Your task to perform on an android device: turn on improve location accuracy Image 0: 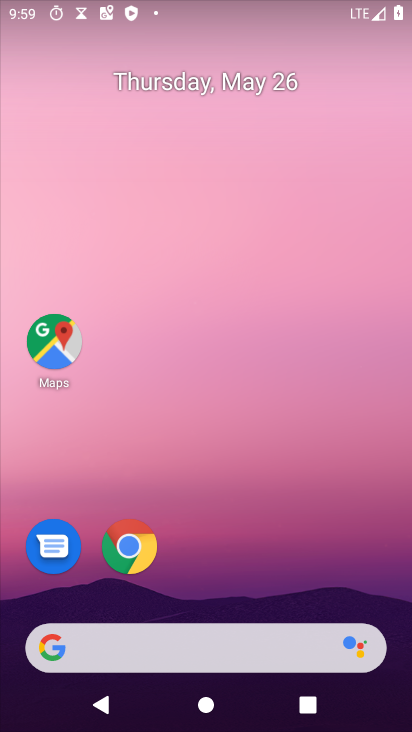
Step 0: drag from (328, 571) to (335, 145)
Your task to perform on an android device: turn on improve location accuracy Image 1: 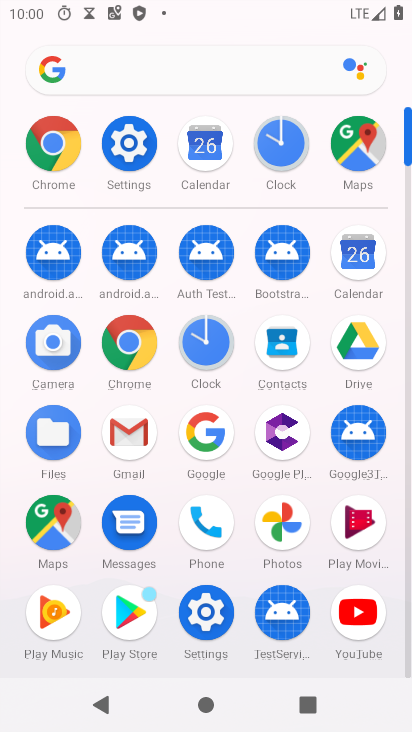
Step 1: click (199, 622)
Your task to perform on an android device: turn on improve location accuracy Image 2: 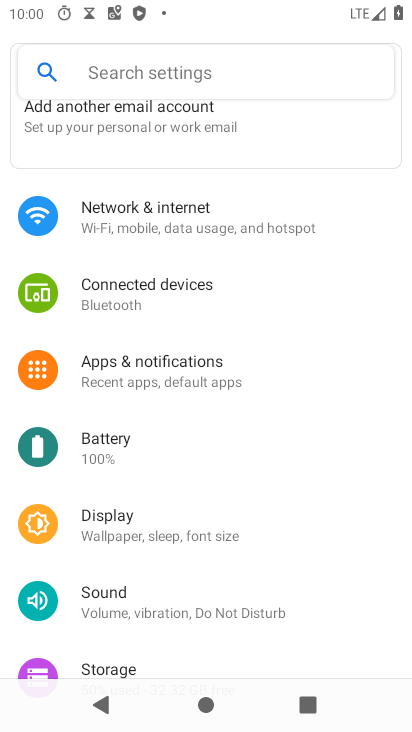
Step 2: drag from (296, 584) to (297, 338)
Your task to perform on an android device: turn on improve location accuracy Image 3: 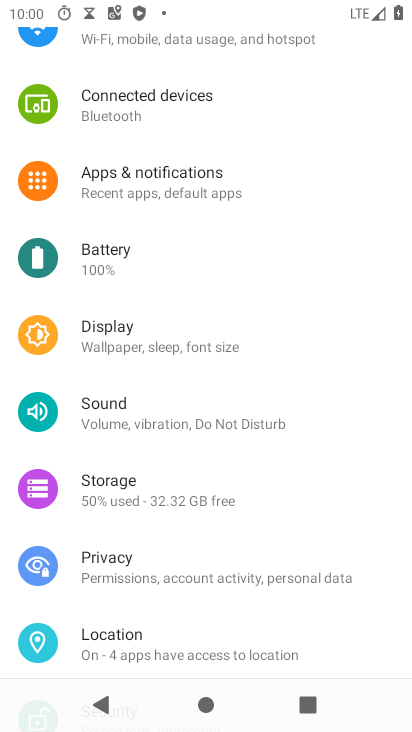
Step 3: drag from (287, 624) to (298, 353)
Your task to perform on an android device: turn on improve location accuracy Image 4: 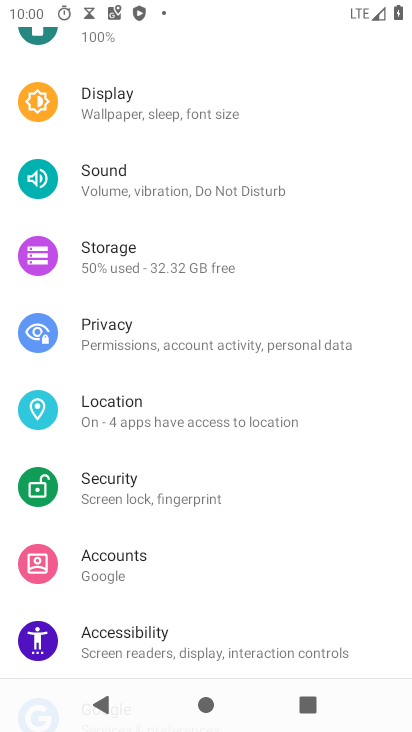
Step 4: click (166, 408)
Your task to perform on an android device: turn on improve location accuracy Image 5: 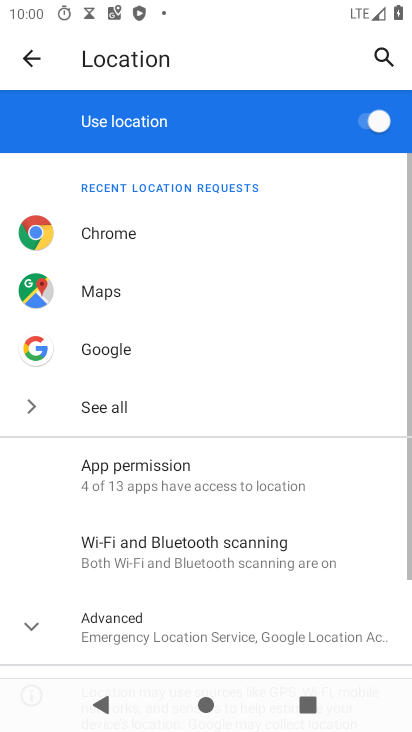
Step 5: click (249, 627)
Your task to perform on an android device: turn on improve location accuracy Image 6: 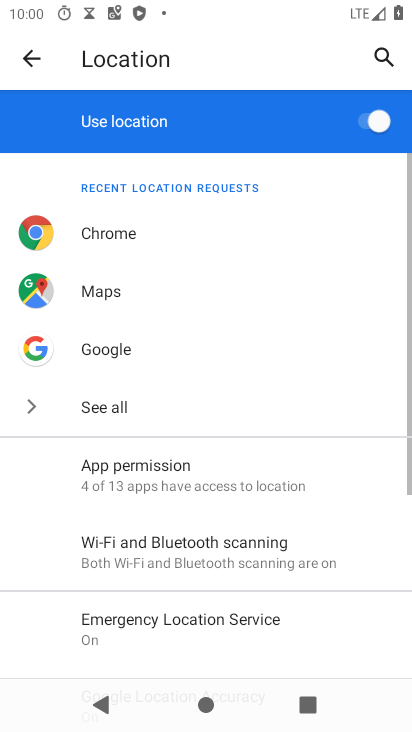
Step 6: task complete